Your task to perform on an android device: open the mobile data screen to see how much data has been used Image 0: 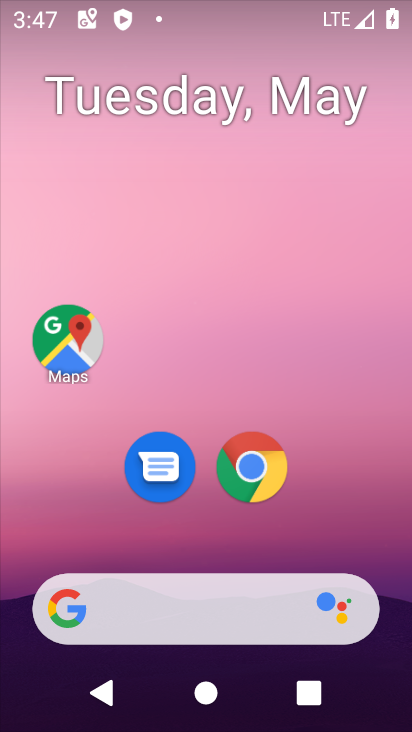
Step 0: press home button
Your task to perform on an android device: open the mobile data screen to see how much data has been used Image 1: 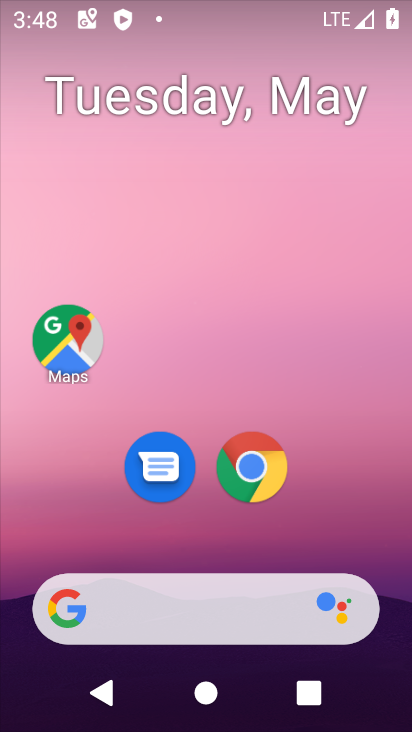
Step 1: drag from (328, 456) to (328, 91)
Your task to perform on an android device: open the mobile data screen to see how much data has been used Image 2: 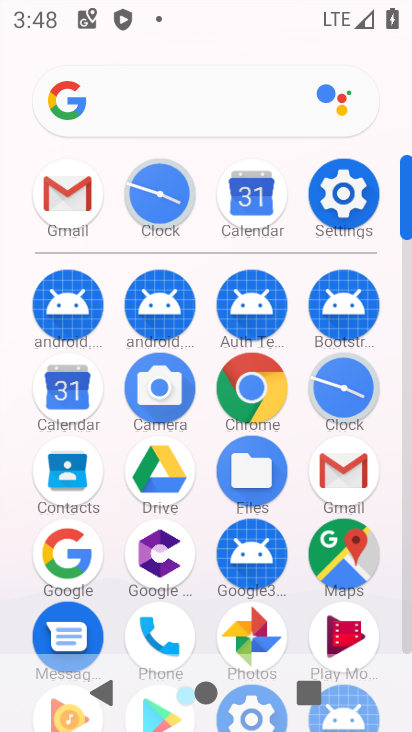
Step 2: click (352, 195)
Your task to perform on an android device: open the mobile data screen to see how much data has been used Image 3: 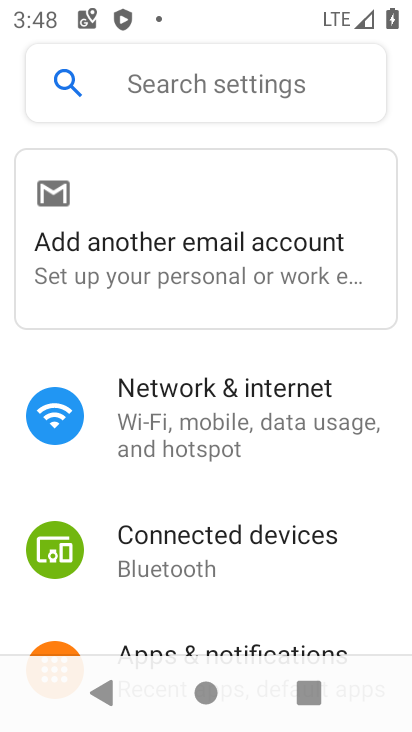
Step 3: click (169, 427)
Your task to perform on an android device: open the mobile data screen to see how much data has been used Image 4: 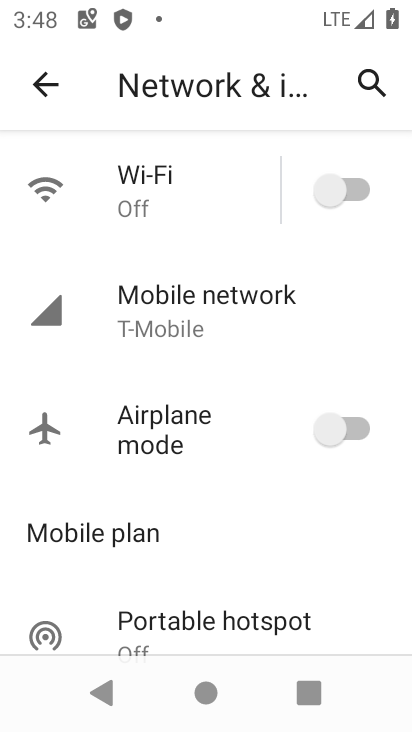
Step 4: click (186, 309)
Your task to perform on an android device: open the mobile data screen to see how much data has been used Image 5: 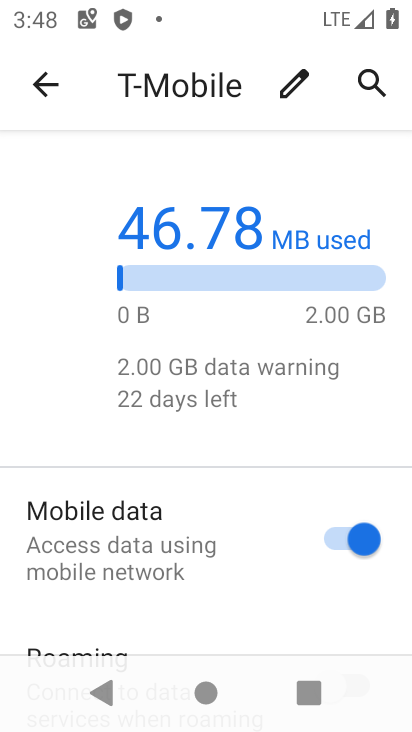
Step 5: task complete